Your task to perform on an android device: set an alarm Image 0: 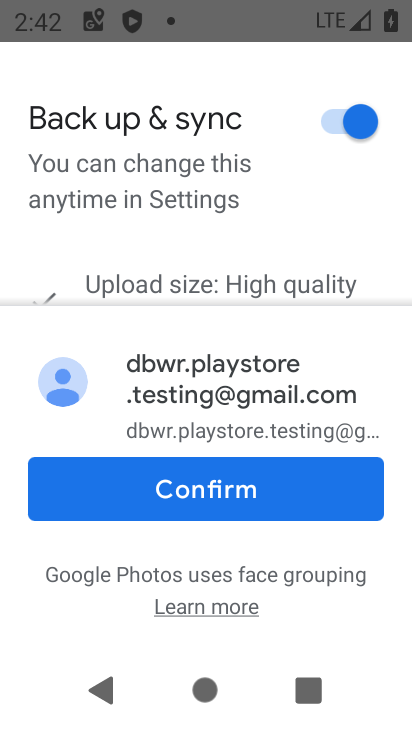
Step 0: press home button
Your task to perform on an android device: set an alarm Image 1: 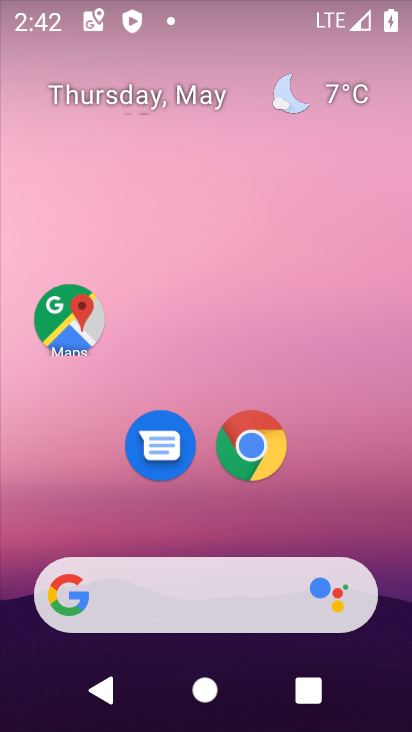
Step 1: drag from (346, 503) to (405, 567)
Your task to perform on an android device: set an alarm Image 2: 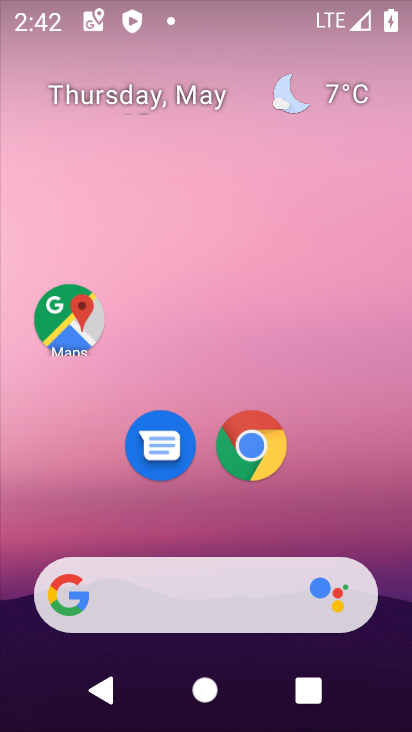
Step 2: drag from (366, 567) to (394, 3)
Your task to perform on an android device: set an alarm Image 3: 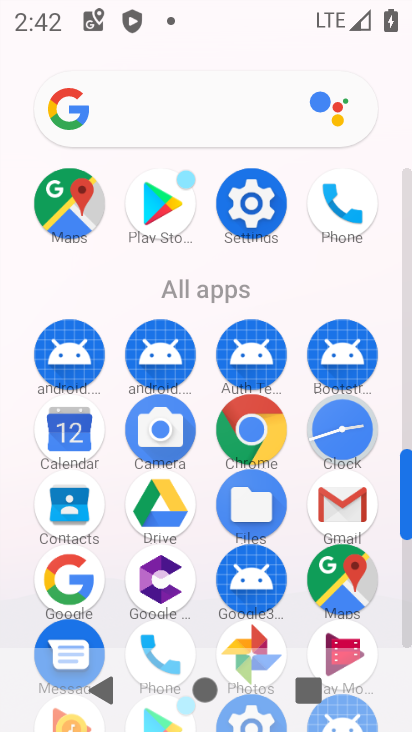
Step 3: click (347, 424)
Your task to perform on an android device: set an alarm Image 4: 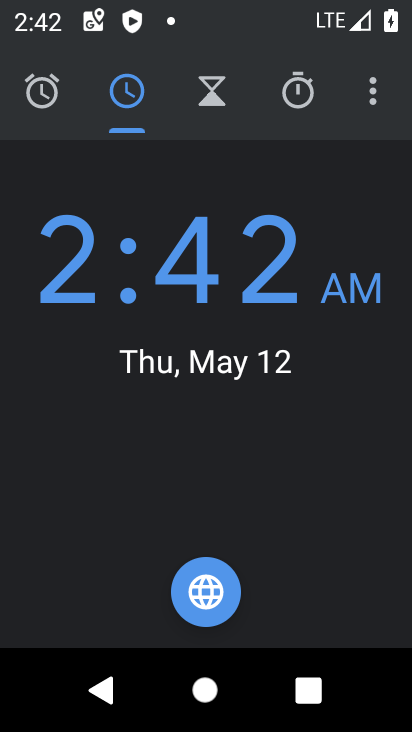
Step 4: click (52, 98)
Your task to perform on an android device: set an alarm Image 5: 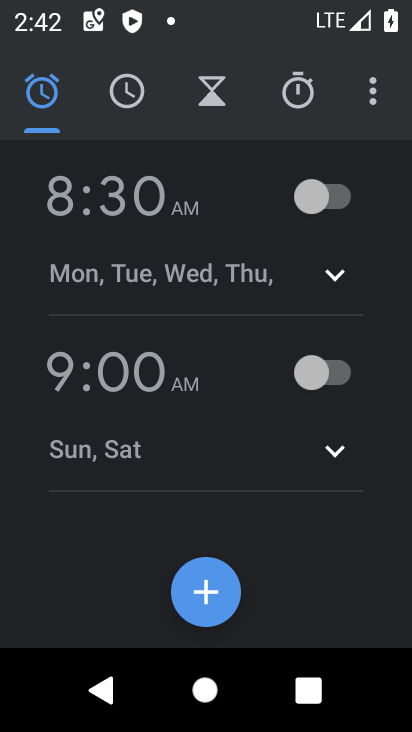
Step 5: click (203, 588)
Your task to perform on an android device: set an alarm Image 6: 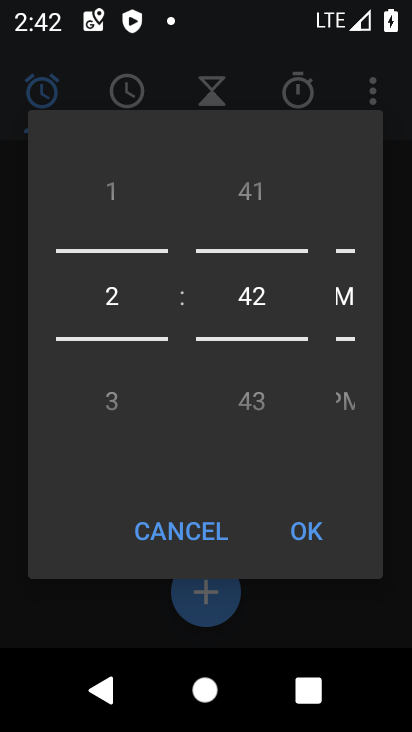
Step 6: drag from (120, 402) to (106, 181)
Your task to perform on an android device: set an alarm Image 7: 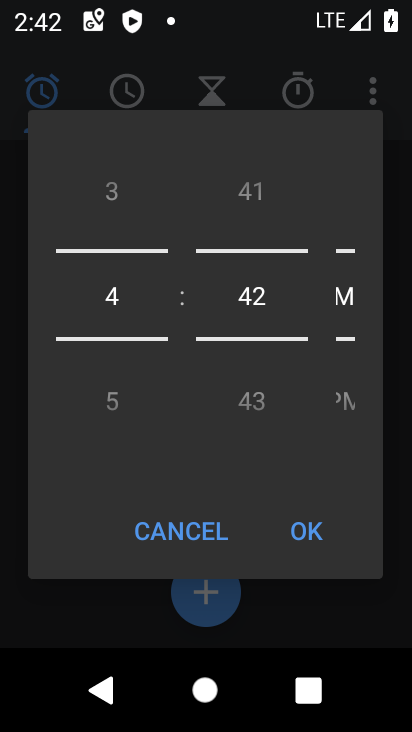
Step 7: drag from (255, 300) to (276, 492)
Your task to perform on an android device: set an alarm Image 8: 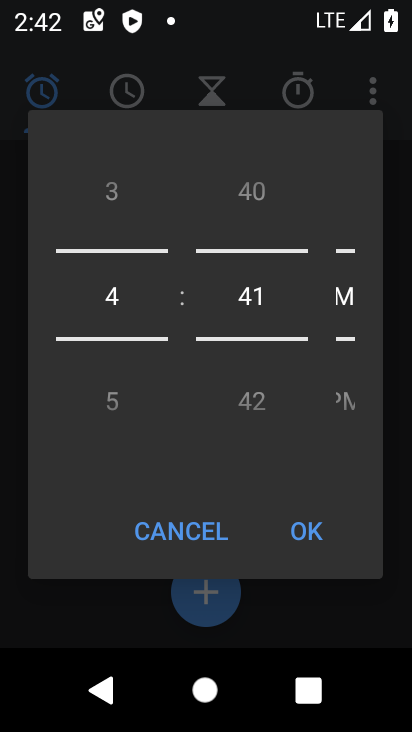
Step 8: drag from (248, 284) to (277, 584)
Your task to perform on an android device: set an alarm Image 9: 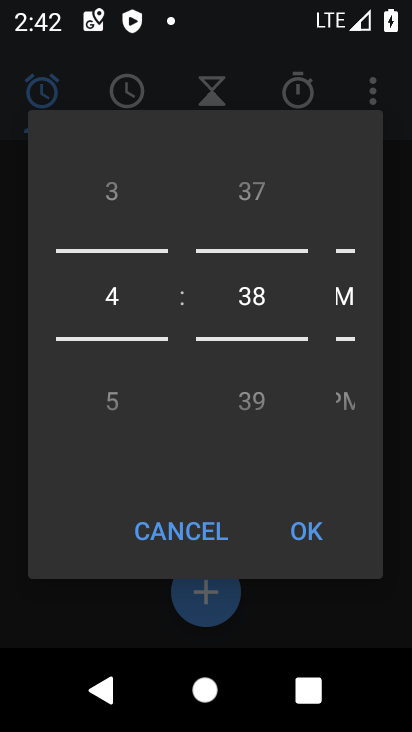
Step 9: drag from (248, 290) to (272, 533)
Your task to perform on an android device: set an alarm Image 10: 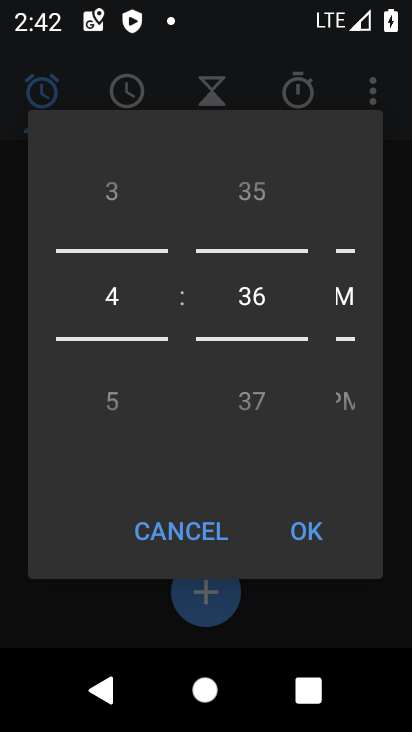
Step 10: drag from (251, 300) to (300, 622)
Your task to perform on an android device: set an alarm Image 11: 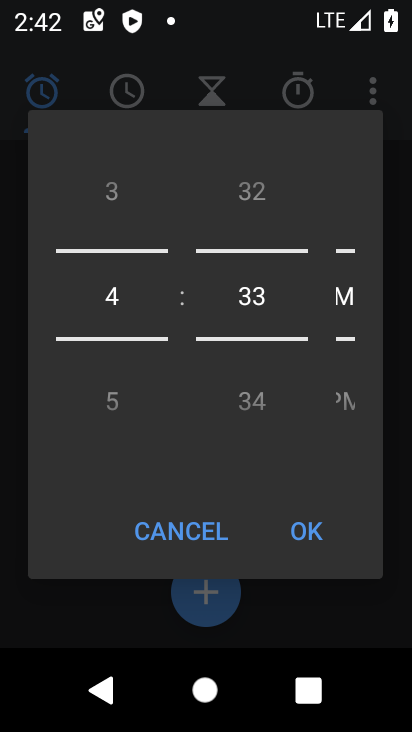
Step 11: drag from (249, 308) to (262, 443)
Your task to perform on an android device: set an alarm Image 12: 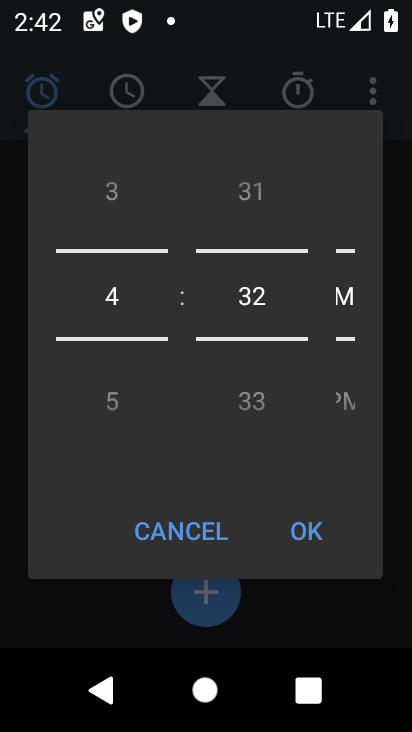
Step 12: drag from (254, 293) to (271, 484)
Your task to perform on an android device: set an alarm Image 13: 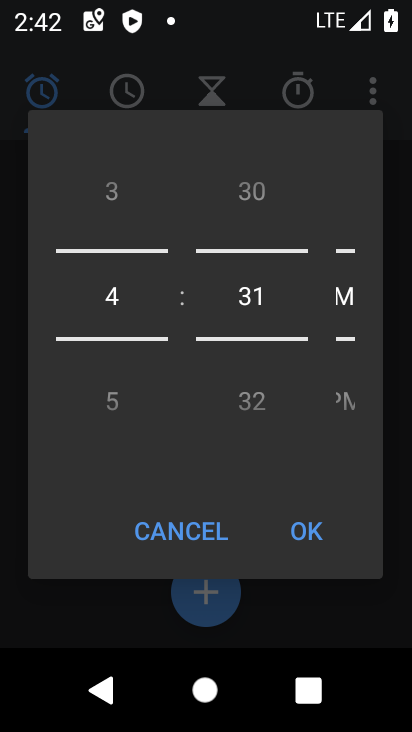
Step 13: drag from (261, 292) to (280, 430)
Your task to perform on an android device: set an alarm Image 14: 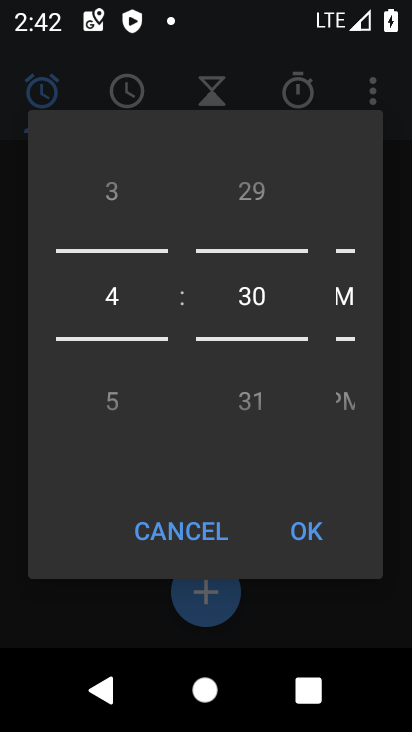
Step 14: click (302, 540)
Your task to perform on an android device: set an alarm Image 15: 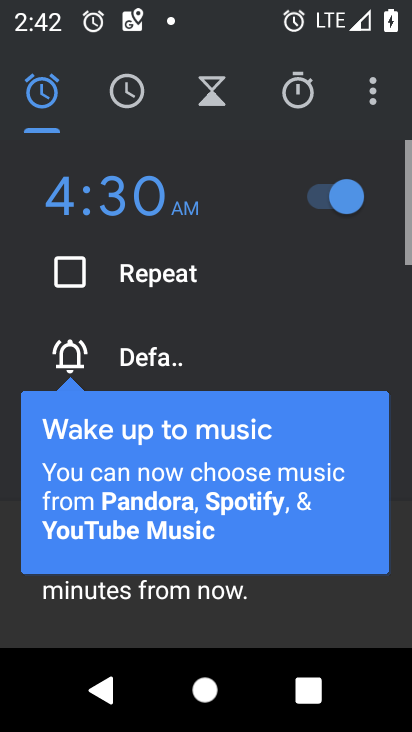
Step 15: task complete